Your task to perform on an android device: move an email to a new category in the gmail app Image 0: 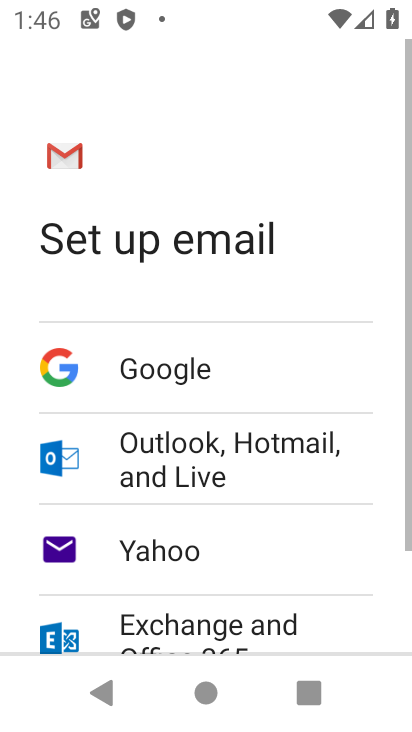
Step 0: press home button
Your task to perform on an android device: move an email to a new category in the gmail app Image 1: 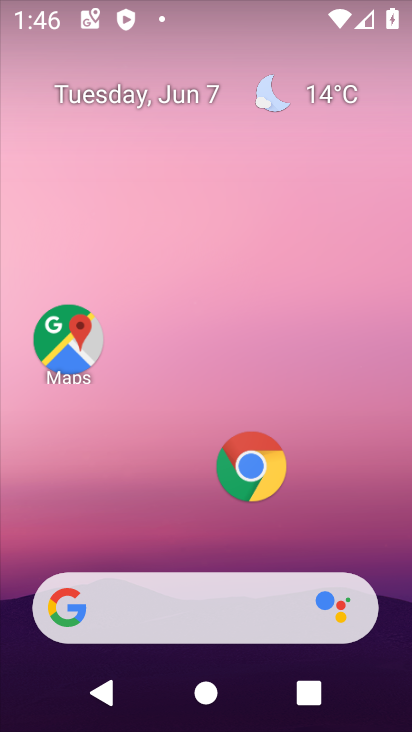
Step 1: drag from (137, 723) to (184, 196)
Your task to perform on an android device: move an email to a new category in the gmail app Image 2: 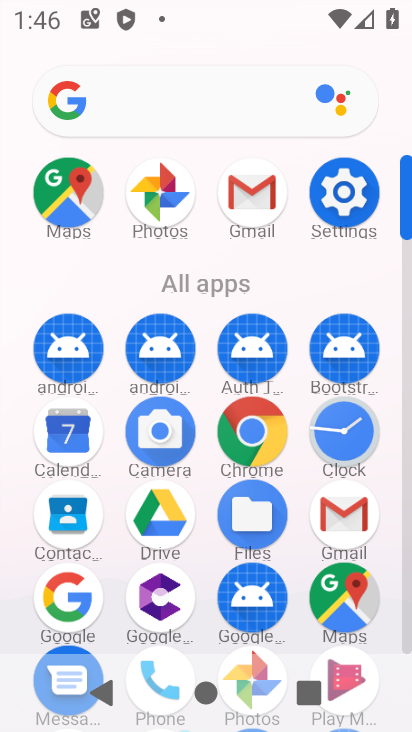
Step 2: click (254, 207)
Your task to perform on an android device: move an email to a new category in the gmail app Image 3: 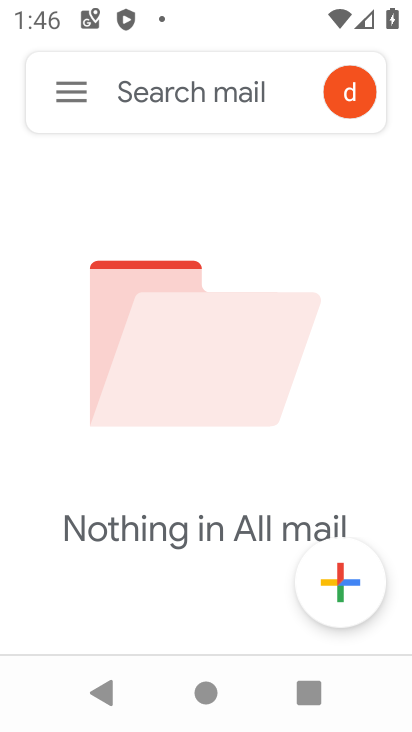
Step 3: click (74, 85)
Your task to perform on an android device: move an email to a new category in the gmail app Image 4: 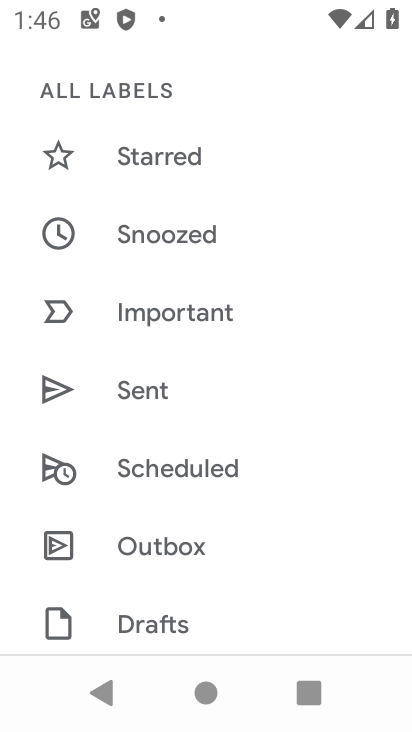
Step 4: drag from (210, 225) to (243, 598)
Your task to perform on an android device: move an email to a new category in the gmail app Image 5: 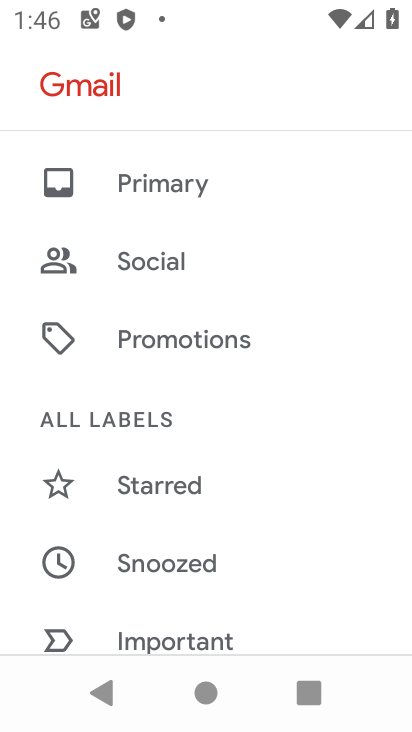
Step 5: click (184, 180)
Your task to perform on an android device: move an email to a new category in the gmail app Image 6: 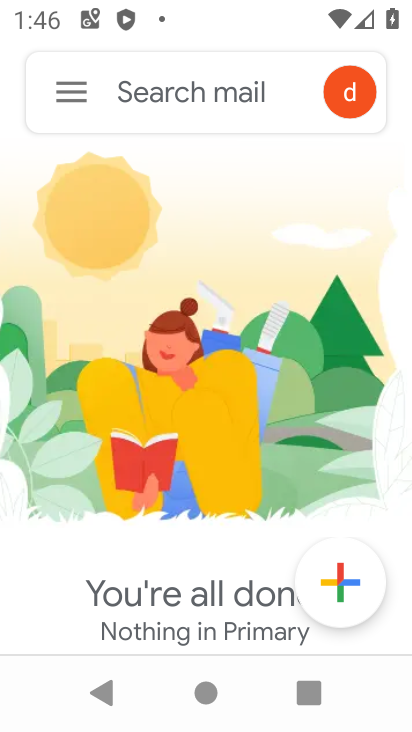
Step 6: click (67, 106)
Your task to perform on an android device: move an email to a new category in the gmail app Image 7: 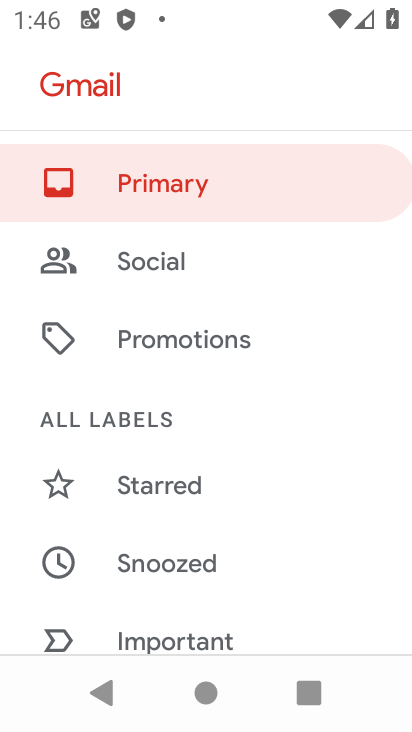
Step 7: drag from (140, 560) to (141, 212)
Your task to perform on an android device: move an email to a new category in the gmail app Image 8: 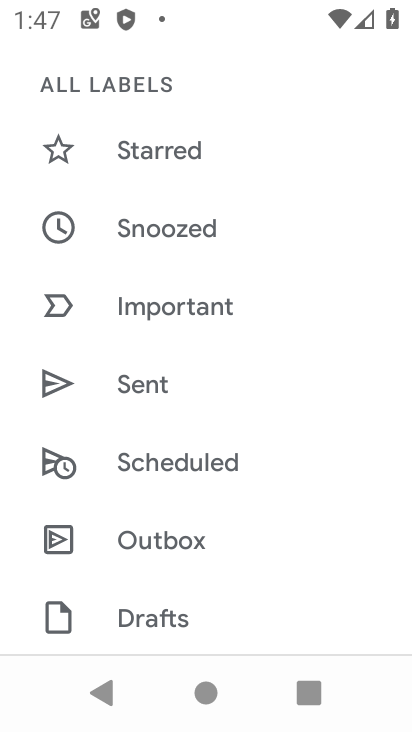
Step 8: drag from (252, 586) to (302, 233)
Your task to perform on an android device: move an email to a new category in the gmail app Image 9: 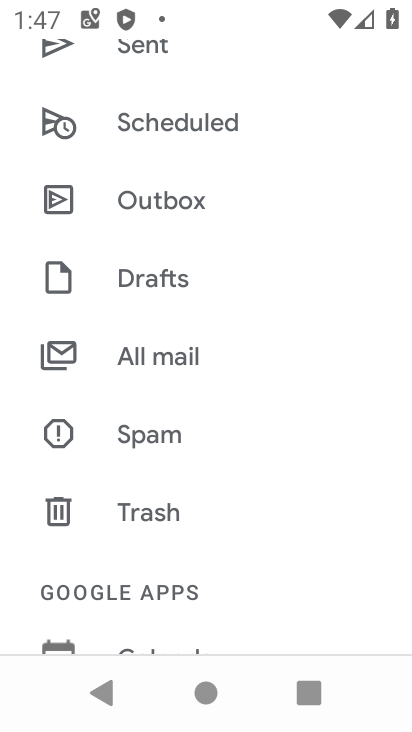
Step 9: click (171, 366)
Your task to perform on an android device: move an email to a new category in the gmail app Image 10: 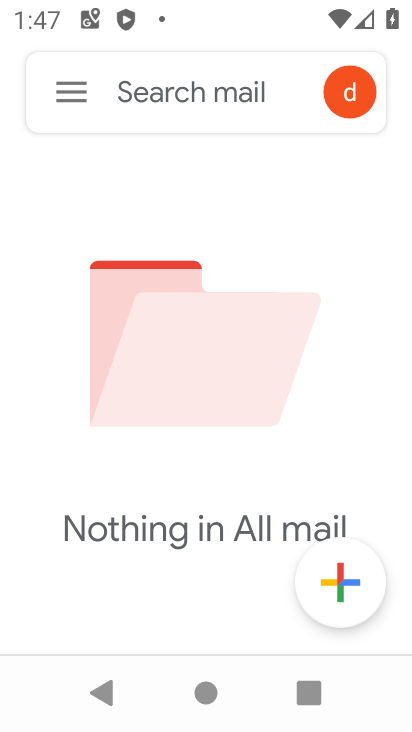
Step 10: task complete